Your task to perform on an android device: What's the weather today? Image 0: 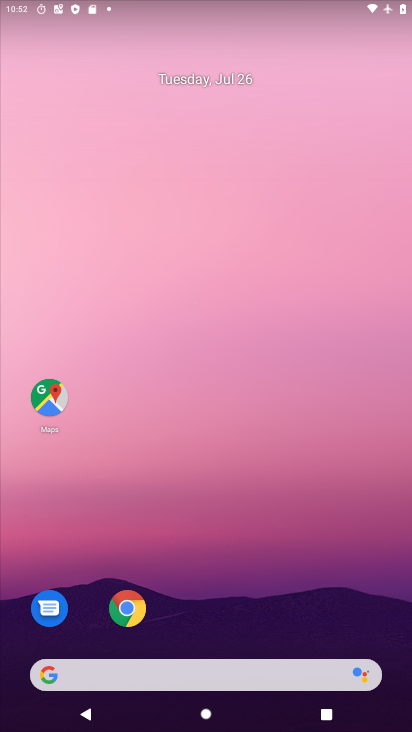
Step 0: drag from (219, 628) to (207, 192)
Your task to perform on an android device: What's the weather today? Image 1: 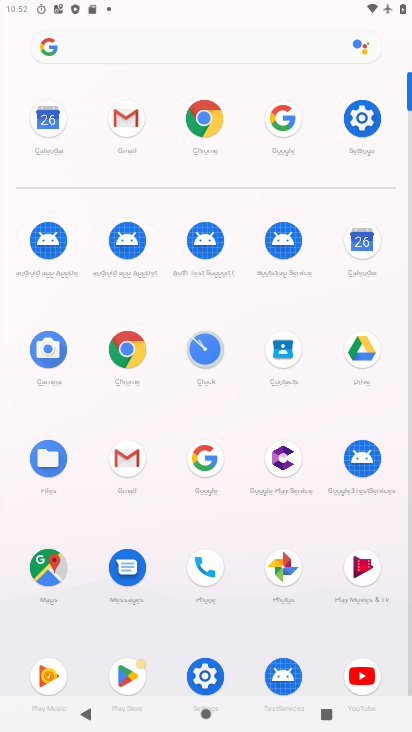
Step 1: click (206, 465)
Your task to perform on an android device: What's the weather today? Image 2: 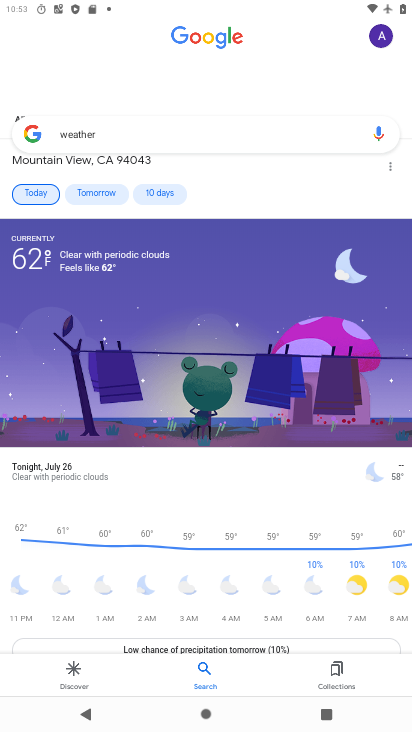
Step 2: task complete